Your task to perform on an android device: Check the weather Image 0: 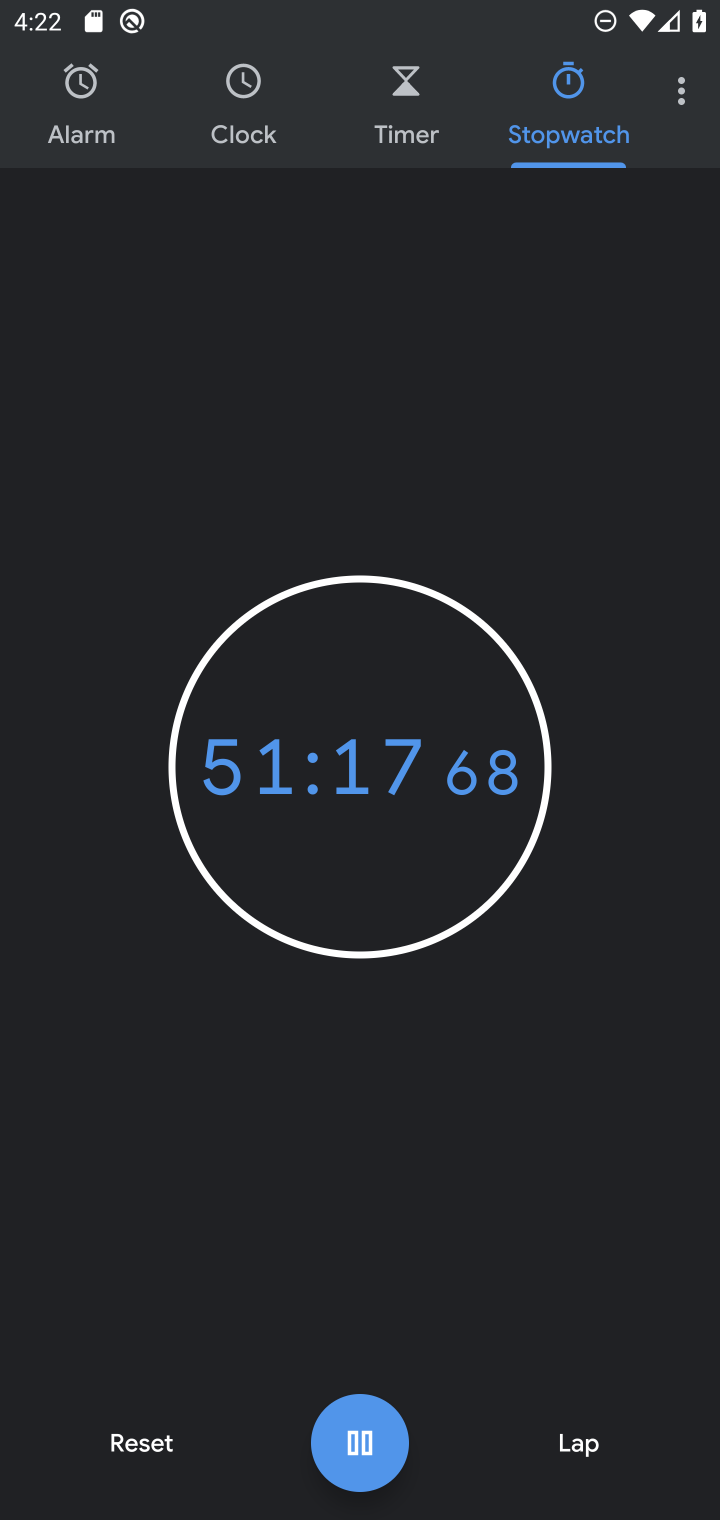
Step 0: press home button
Your task to perform on an android device: Check the weather Image 1: 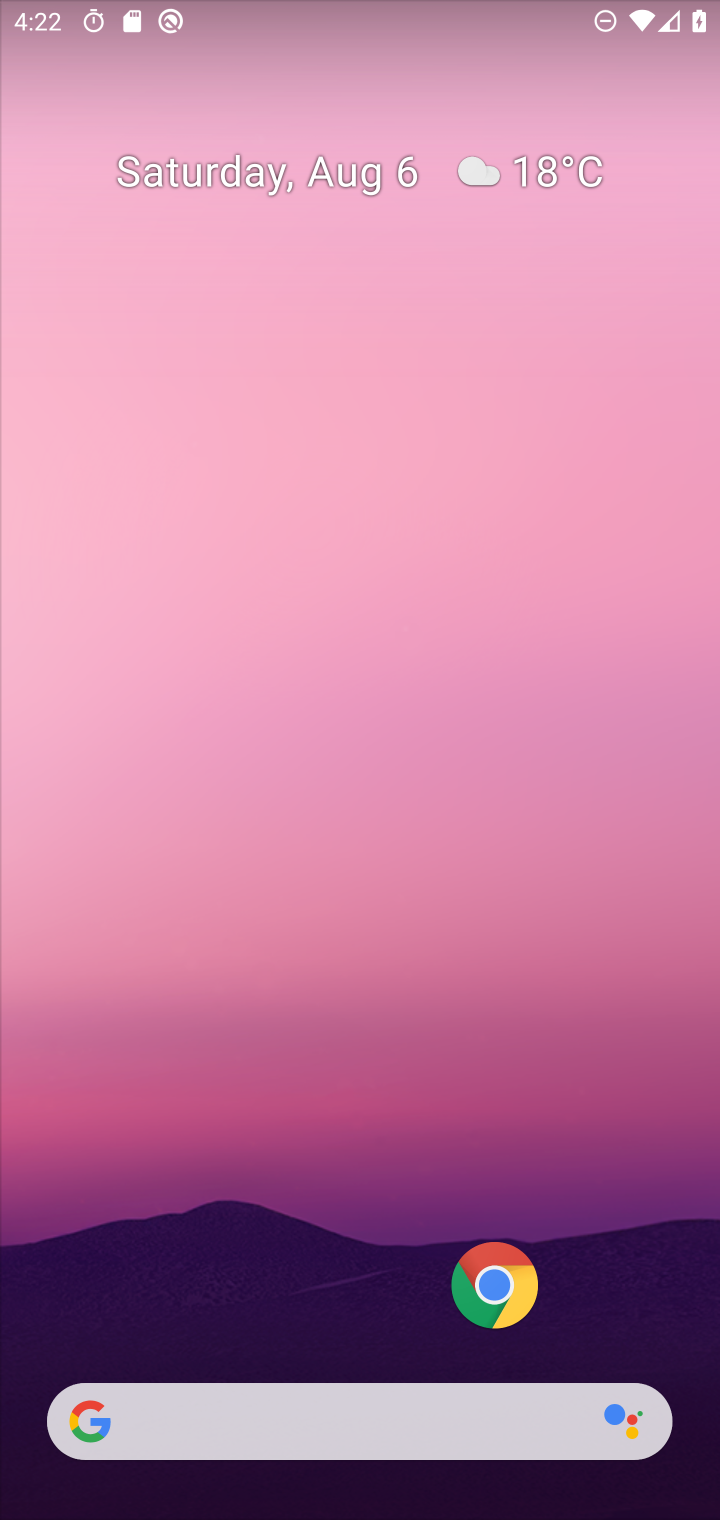
Step 1: click (534, 158)
Your task to perform on an android device: Check the weather Image 2: 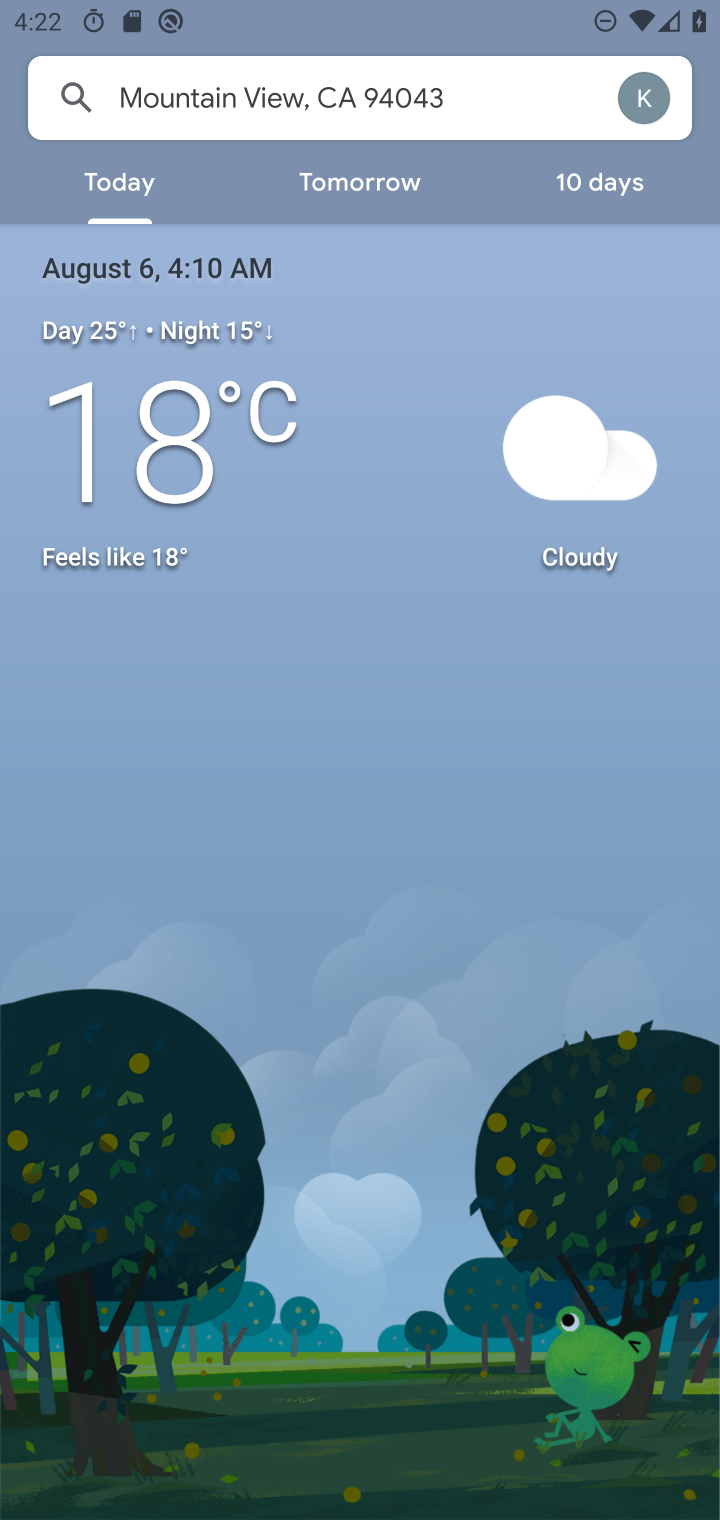
Step 2: task complete